Your task to perform on an android device: open sync settings in chrome Image 0: 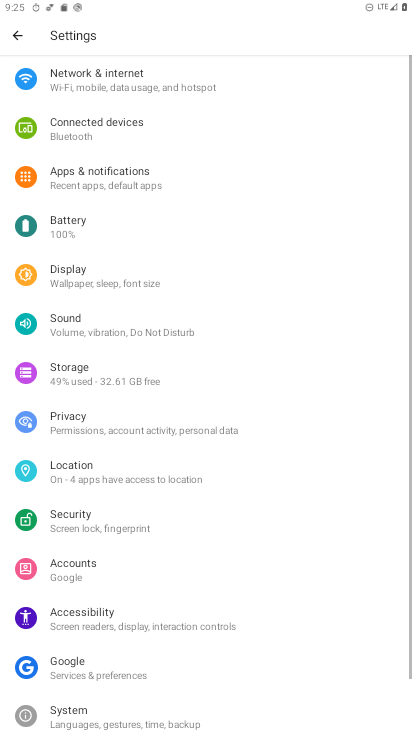
Step 0: press home button
Your task to perform on an android device: open sync settings in chrome Image 1: 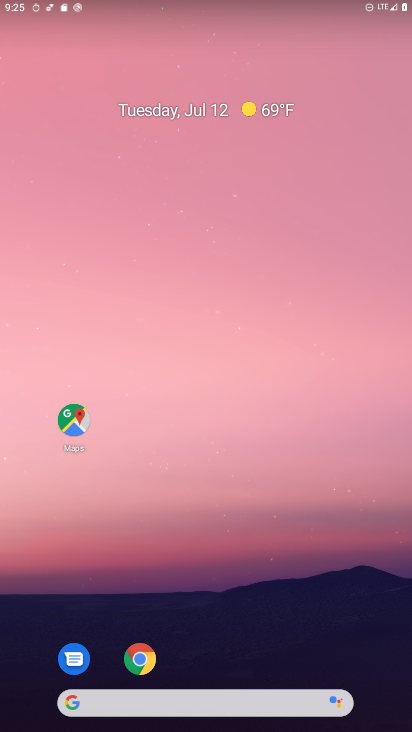
Step 1: click (140, 659)
Your task to perform on an android device: open sync settings in chrome Image 2: 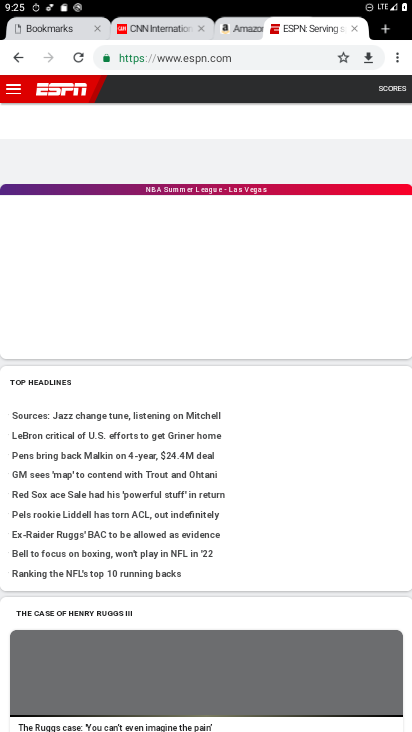
Step 2: click (396, 61)
Your task to perform on an android device: open sync settings in chrome Image 3: 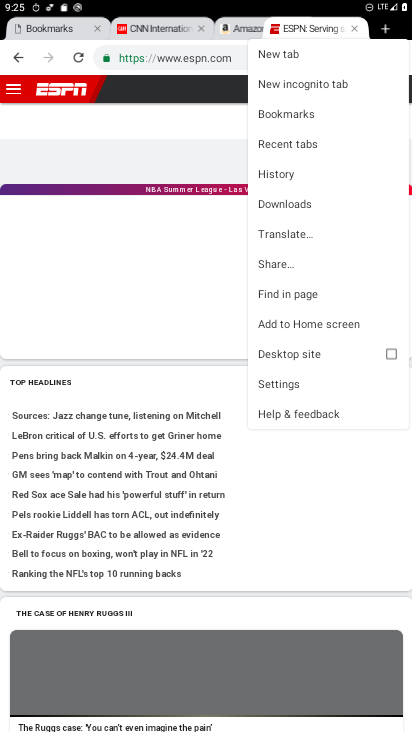
Step 3: click (286, 383)
Your task to perform on an android device: open sync settings in chrome Image 4: 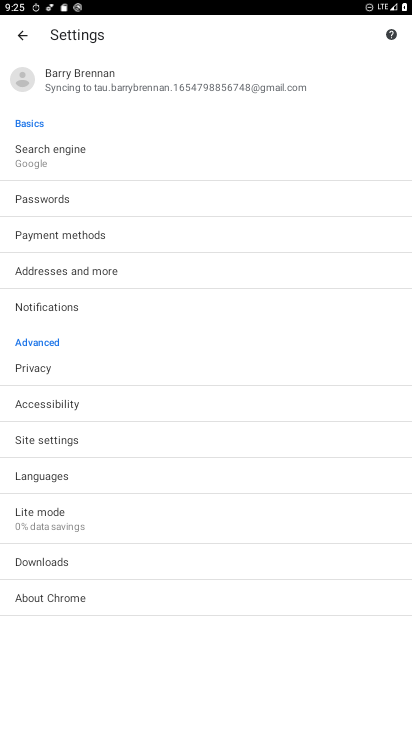
Step 4: click (61, 442)
Your task to perform on an android device: open sync settings in chrome Image 5: 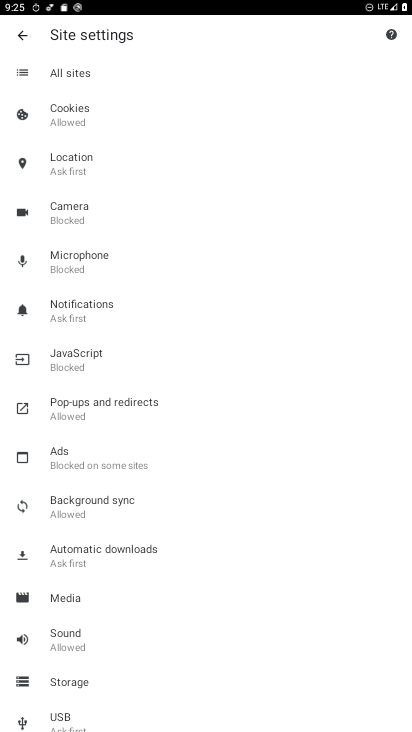
Step 5: click (79, 504)
Your task to perform on an android device: open sync settings in chrome Image 6: 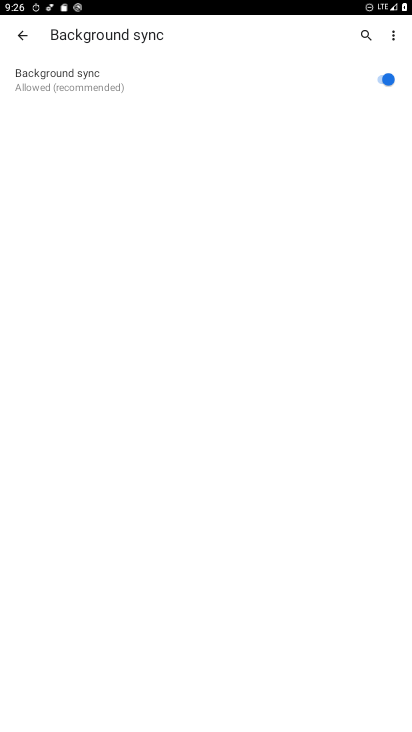
Step 6: task complete